Your task to perform on an android device: turn vacation reply on in the gmail app Image 0: 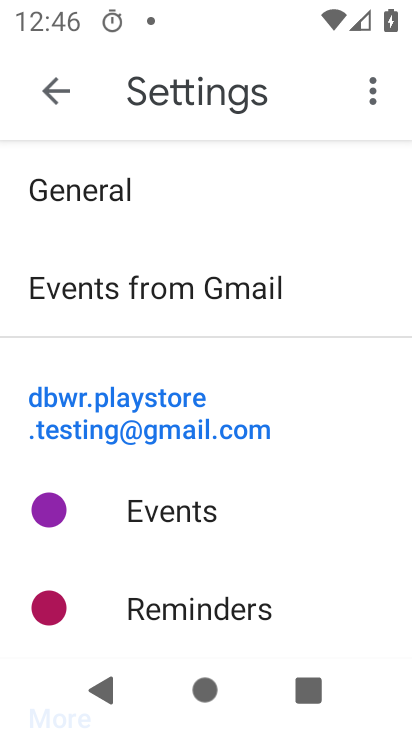
Step 0: press home button
Your task to perform on an android device: turn vacation reply on in the gmail app Image 1: 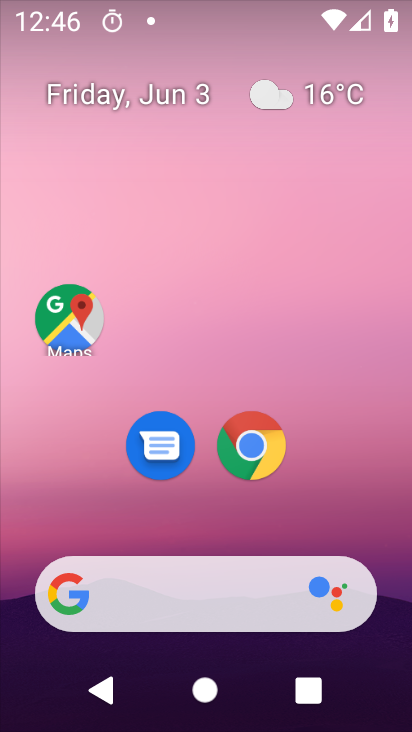
Step 1: drag from (232, 533) to (15, 10)
Your task to perform on an android device: turn vacation reply on in the gmail app Image 2: 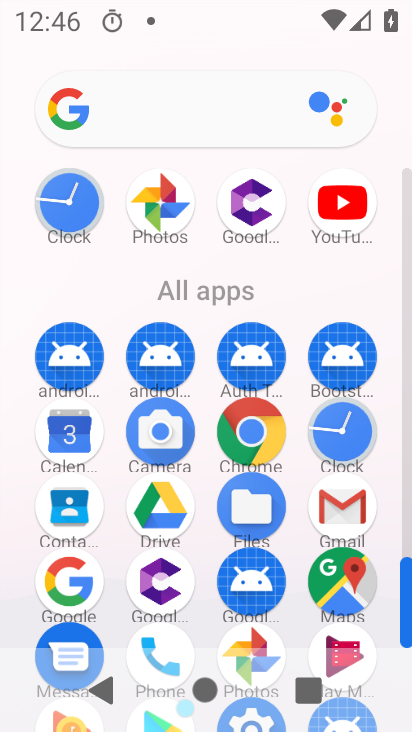
Step 2: click (348, 496)
Your task to perform on an android device: turn vacation reply on in the gmail app Image 3: 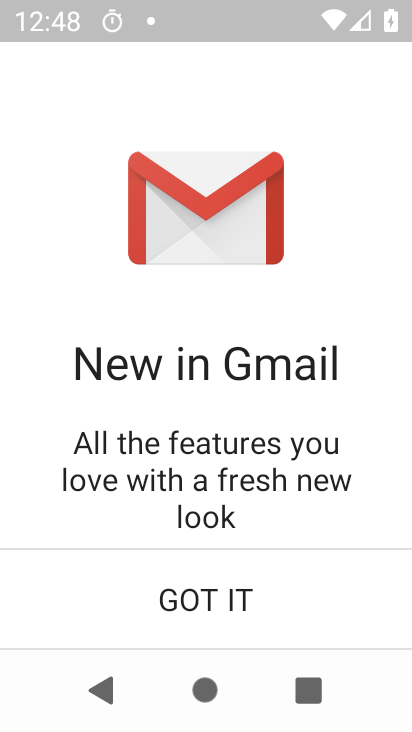
Step 3: click (191, 584)
Your task to perform on an android device: turn vacation reply on in the gmail app Image 4: 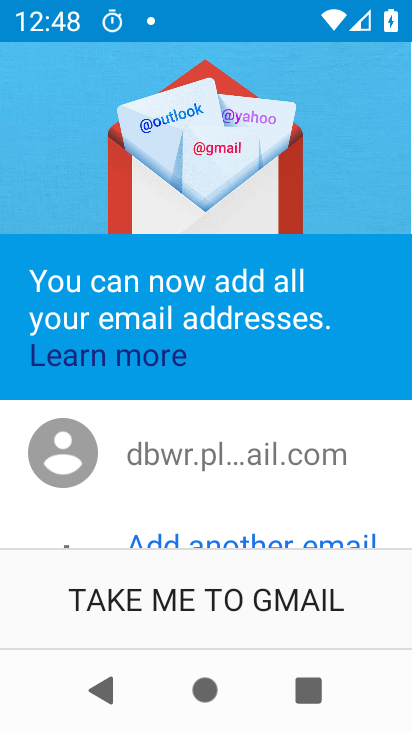
Step 4: click (225, 583)
Your task to perform on an android device: turn vacation reply on in the gmail app Image 5: 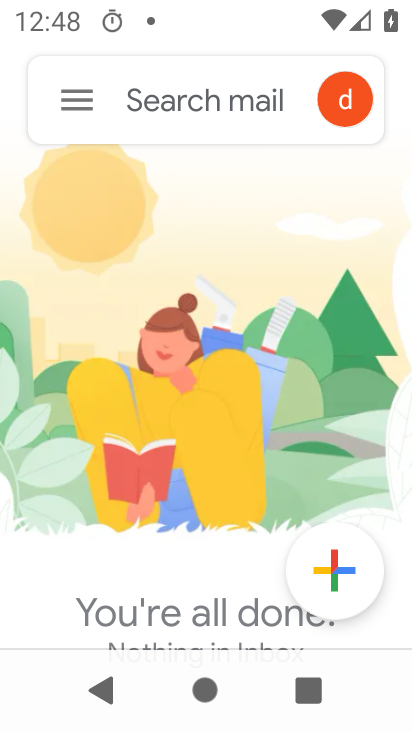
Step 5: click (74, 119)
Your task to perform on an android device: turn vacation reply on in the gmail app Image 6: 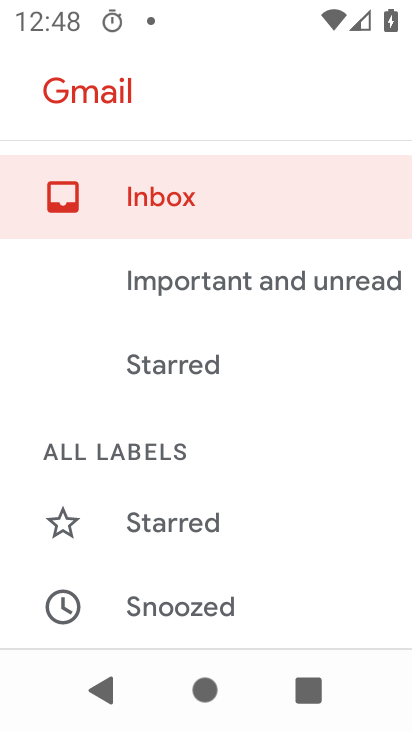
Step 6: drag from (84, 572) to (170, 255)
Your task to perform on an android device: turn vacation reply on in the gmail app Image 7: 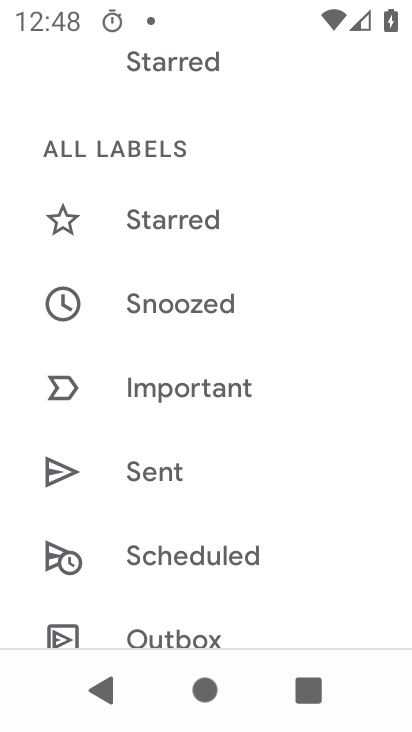
Step 7: drag from (26, 725) to (129, 443)
Your task to perform on an android device: turn vacation reply on in the gmail app Image 8: 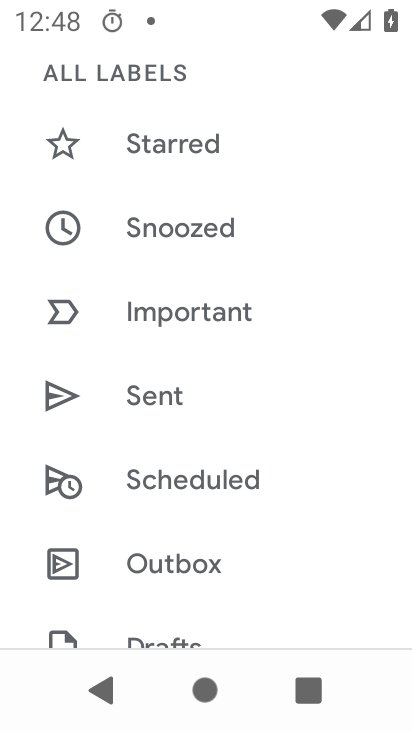
Step 8: drag from (137, 545) to (327, 118)
Your task to perform on an android device: turn vacation reply on in the gmail app Image 9: 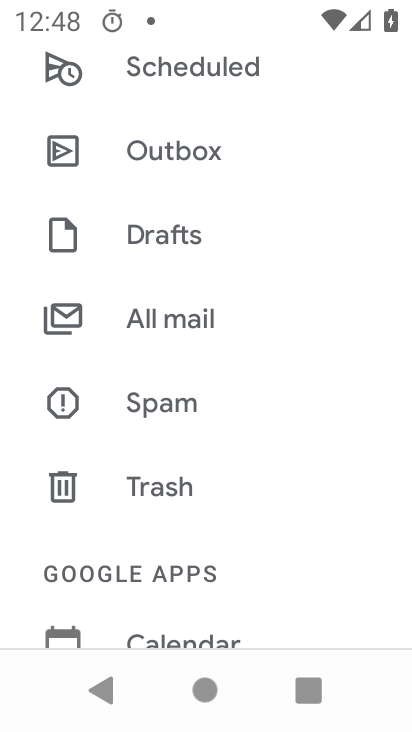
Step 9: drag from (190, 595) to (244, 264)
Your task to perform on an android device: turn vacation reply on in the gmail app Image 10: 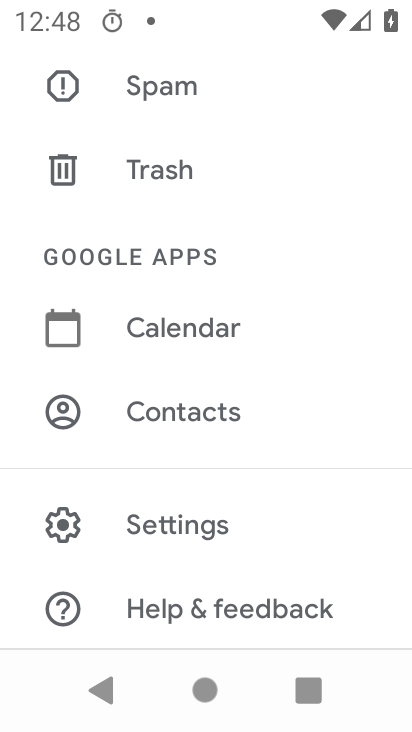
Step 10: click (130, 550)
Your task to perform on an android device: turn vacation reply on in the gmail app Image 11: 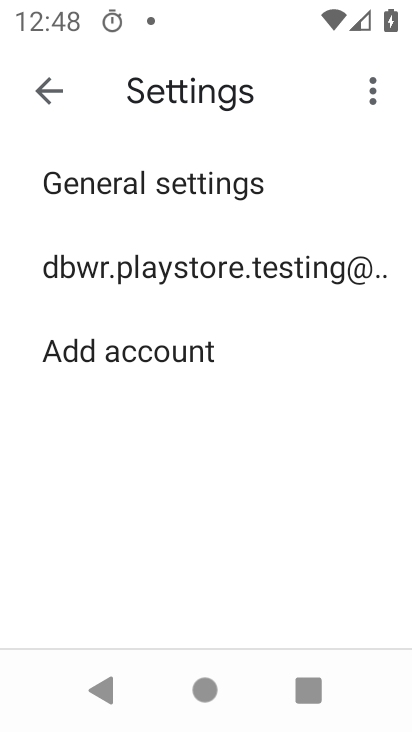
Step 11: click (220, 273)
Your task to perform on an android device: turn vacation reply on in the gmail app Image 12: 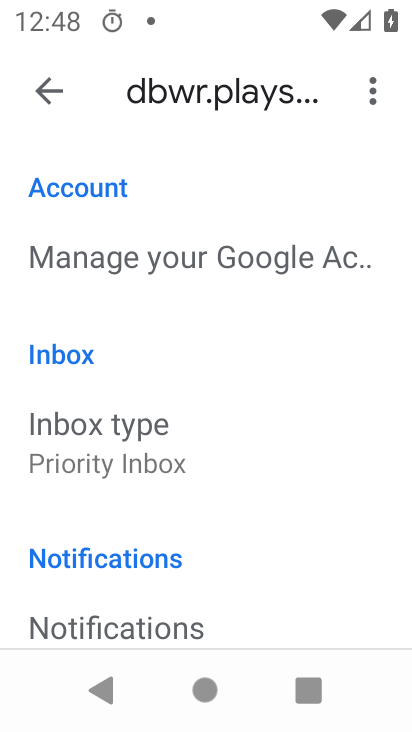
Step 12: drag from (64, 606) to (207, 87)
Your task to perform on an android device: turn vacation reply on in the gmail app Image 13: 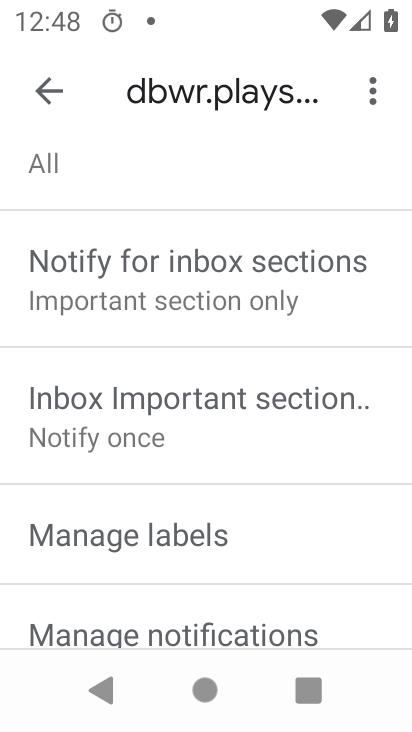
Step 13: drag from (158, 613) to (214, 261)
Your task to perform on an android device: turn vacation reply on in the gmail app Image 14: 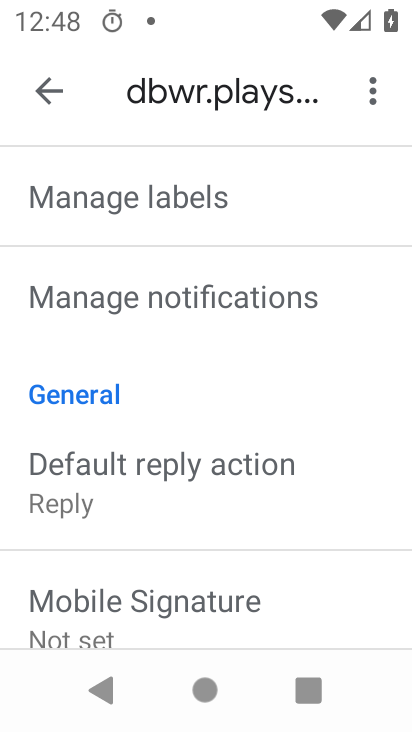
Step 14: drag from (149, 605) to (109, 317)
Your task to perform on an android device: turn vacation reply on in the gmail app Image 15: 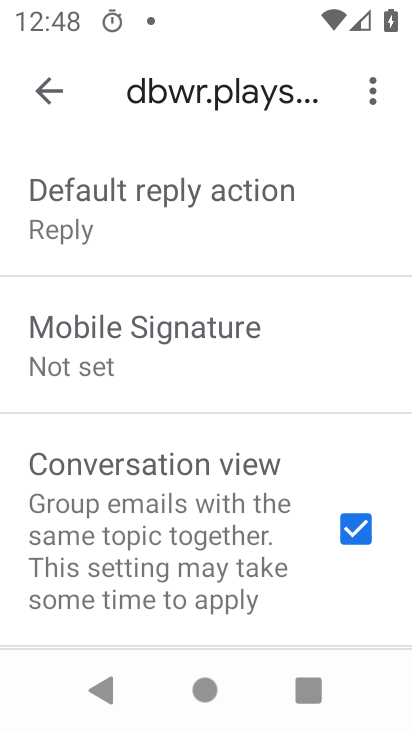
Step 15: drag from (232, 572) to (285, 140)
Your task to perform on an android device: turn vacation reply on in the gmail app Image 16: 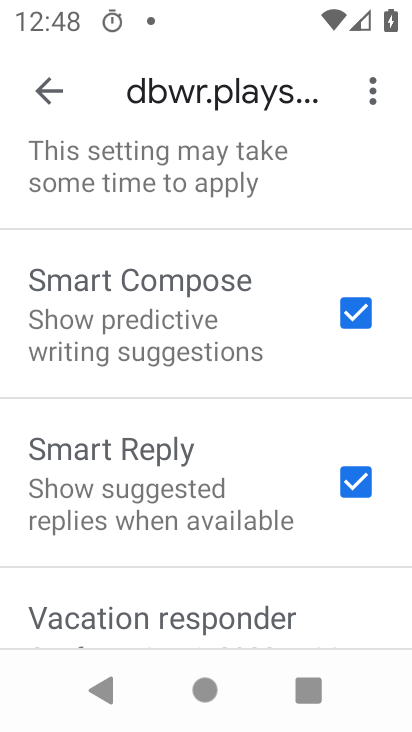
Step 16: drag from (114, 619) to (172, 285)
Your task to perform on an android device: turn vacation reply on in the gmail app Image 17: 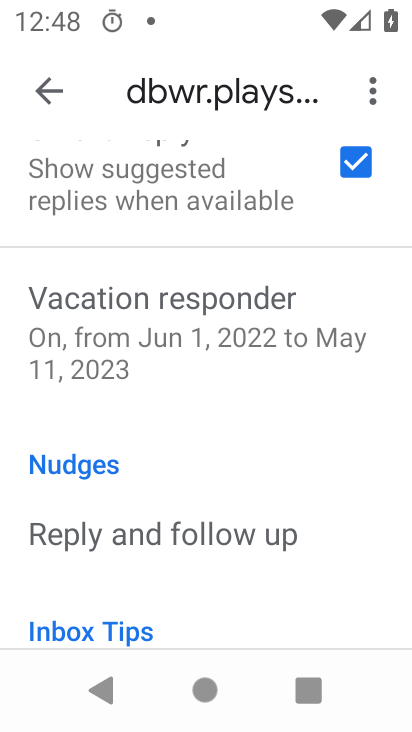
Step 17: click (172, 285)
Your task to perform on an android device: turn vacation reply on in the gmail app Image 18: 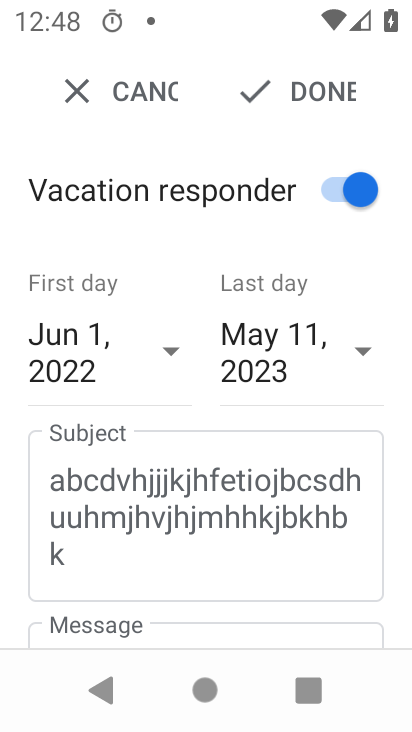
Step 18: click (259, 76)
Your task to perform on an android device: turn vacation reply on in the gmail app Image 19: 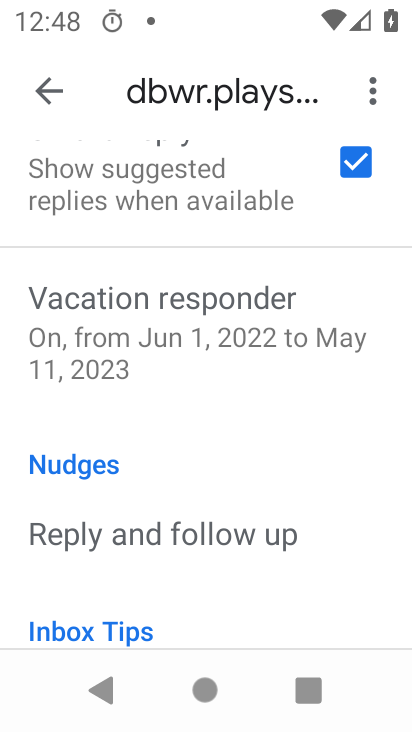
Step 19: task complete